Your task to perform on an android device: Go to Reddit.com Image 0: 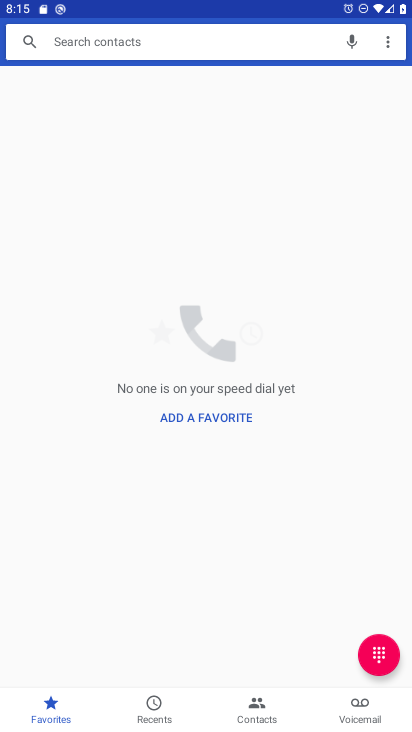
Step 0: press home button
Your task to perform on an android device: Go to Reddit.com Image 1: 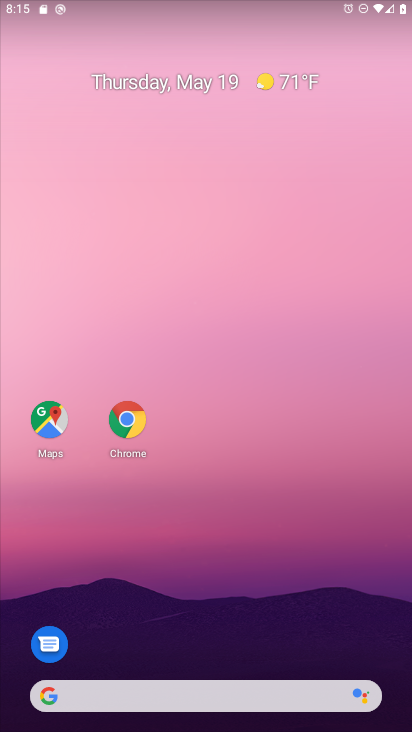
Step 1: drag from (148, 666) to (165, 420)
Your task to perform on an android device: Go to Reddit.com Image 2: 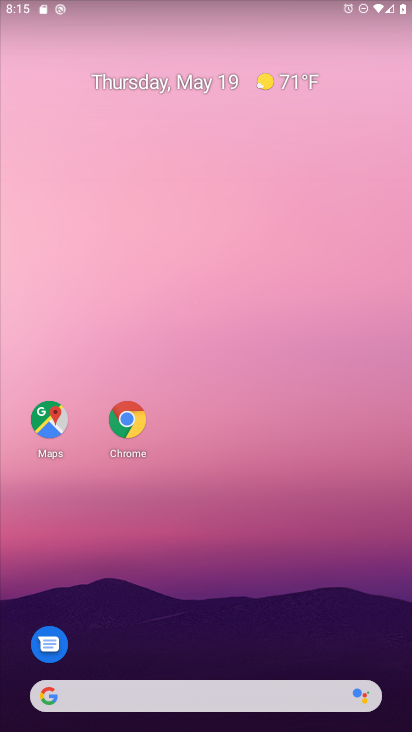
Step 2: drag from (149, 667) to (175, 306)
Your task to perform on an android device: Go to Reddit.com Image 3: 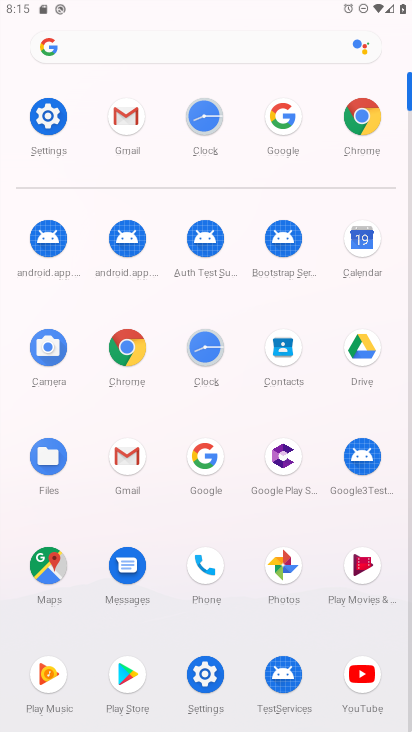
Step 3: click (213, 451)
Your task to perform on an android device: Go to Reddit.com Image 4: 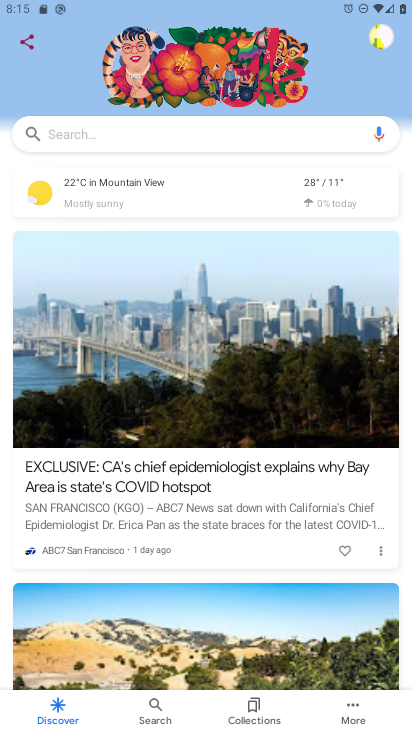
Step 4: click (85, 140)
Your task to perform on an android device: Go to Reddit.com Image 5: 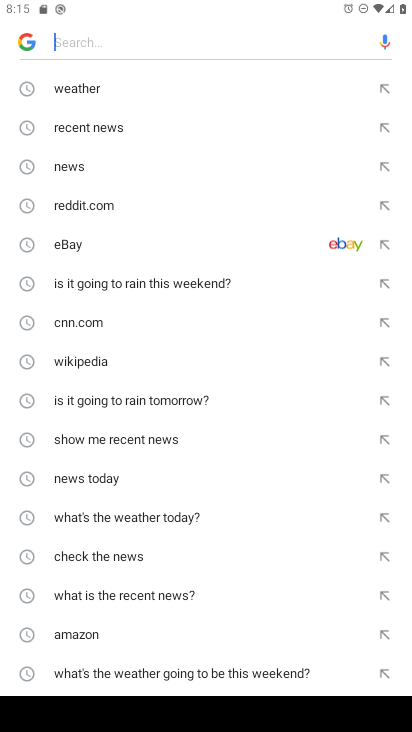
Step 5: click (94, 197)
Your task to perform on an android device: Go to Reddit.com Image 6: 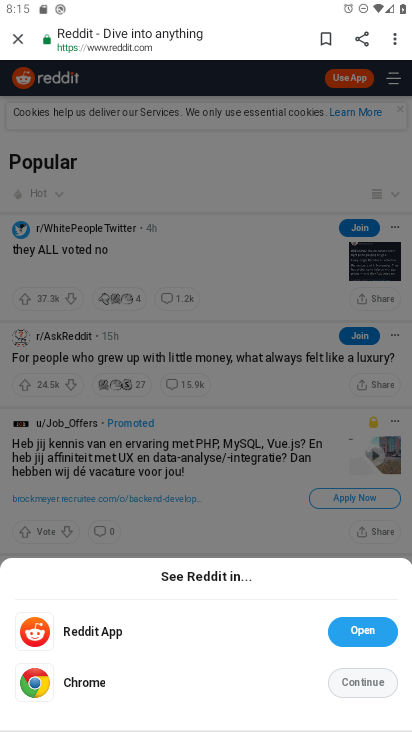
Step 6: task complete